Your task to perform on an android device: toggle wifi Image 0: 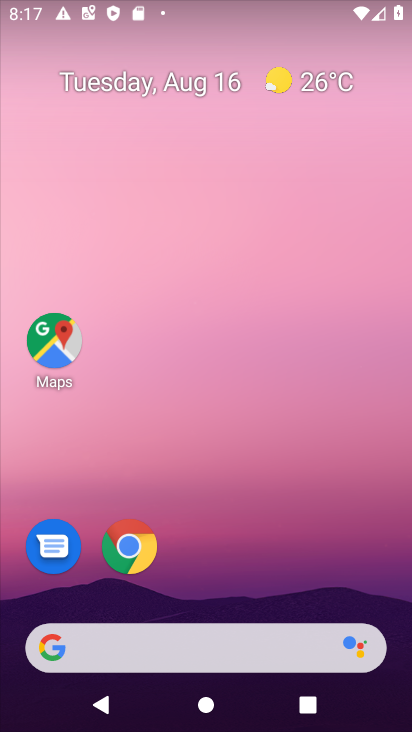
Step 0: drag from (219, 516) to (197, 0)
Your task to perform on an android device: toggle wifi Image 1: 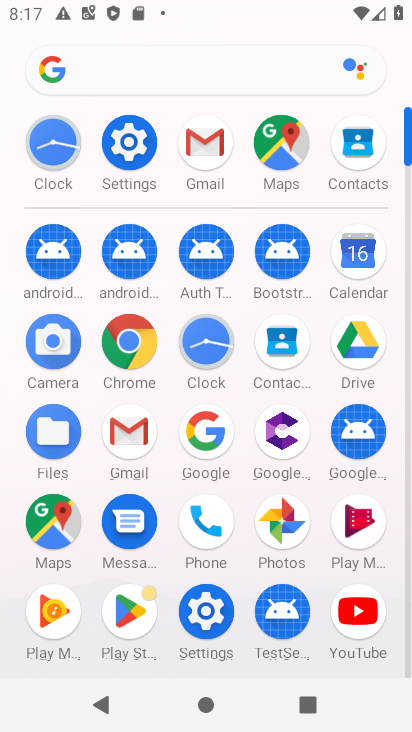
Step 1: click (128, 139)
Your task to perform on an android device: toggle wifi Image 2: 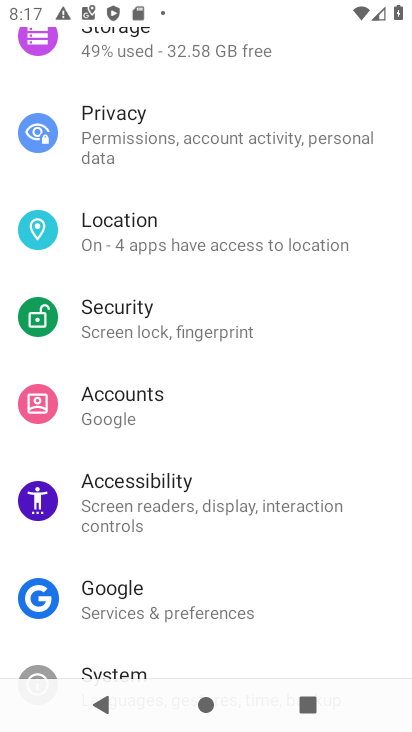
Step 2: drag from (201, 218) to (263, 647)
Your task to perform on an android device: toggle wifi Image 3: 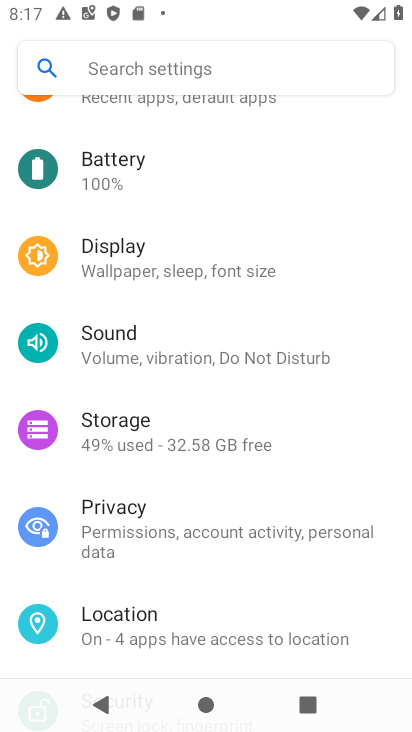
Step 3: drag from (175, 226) to (198, 650)
Your task to perform on an android device: toggle wifi Image 4: 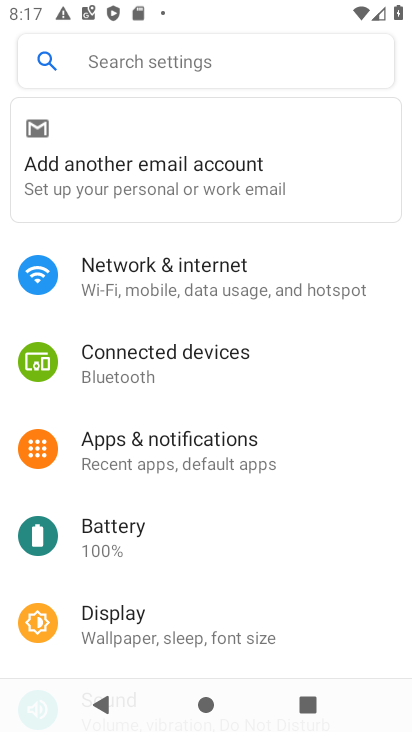
Step 4: click (192, 283)
Your task to perform on an android device: toggle wifi Image 5: 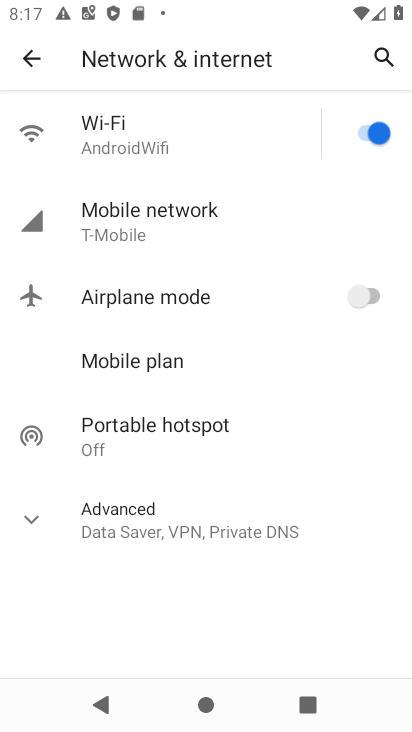
Step 5: click (369, 124)
Your task to perform on an android device: toggle wifi Image 6: 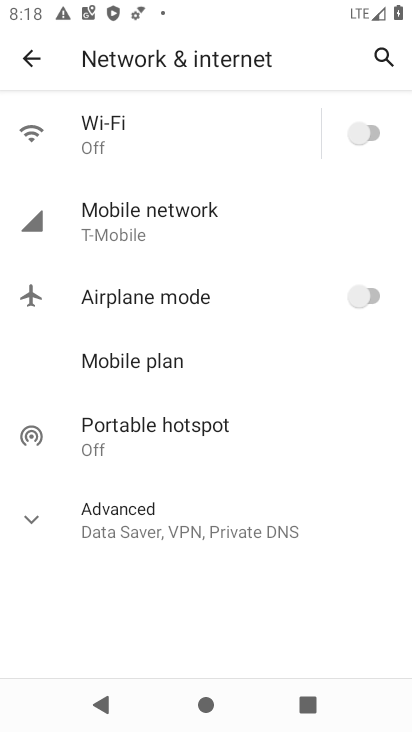
Step 6: task complete